Your task to perform on an android device: See recent photos Image 0: 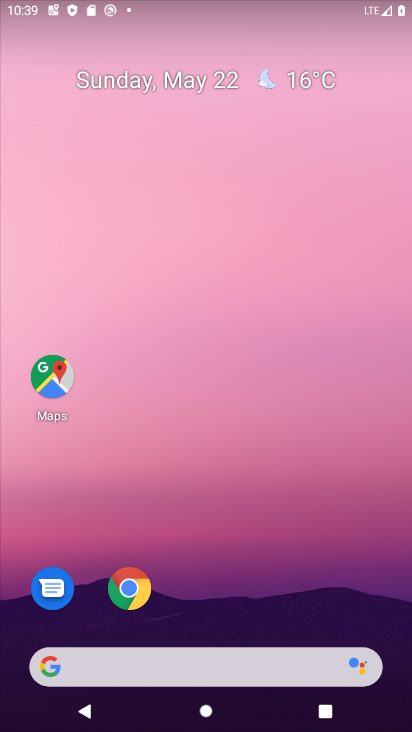
Step 0: drag from (258, 384) to (258, 216)
Your task to perform on an android device: See recent photos Image 1: 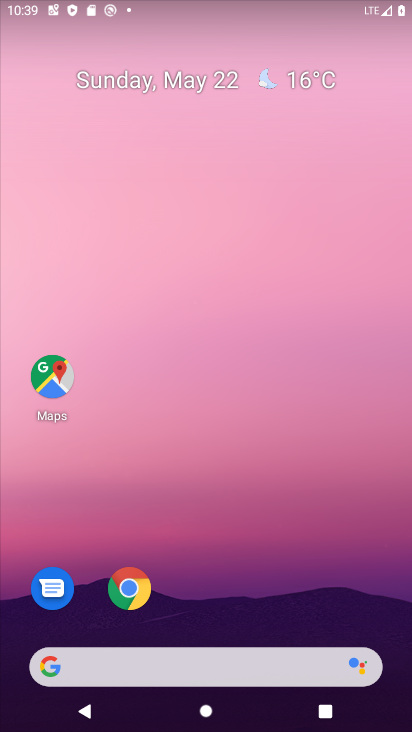
Step 1: drag from (196, 618) to (230, 154)
Your task to perform on an android device: See recent photos Image 2: 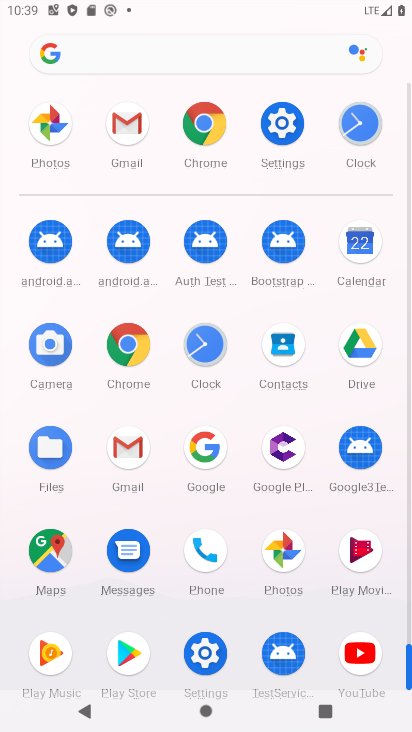
Step 2: click (202, 456)
Your task to perform on an android device: See recent photos Image 3: 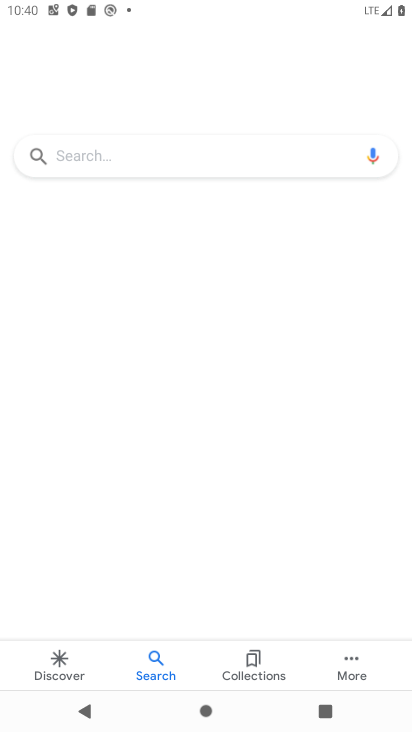
Step 3: click (116, 155)
Your task to perform on an android device: See recent photos Image 4: 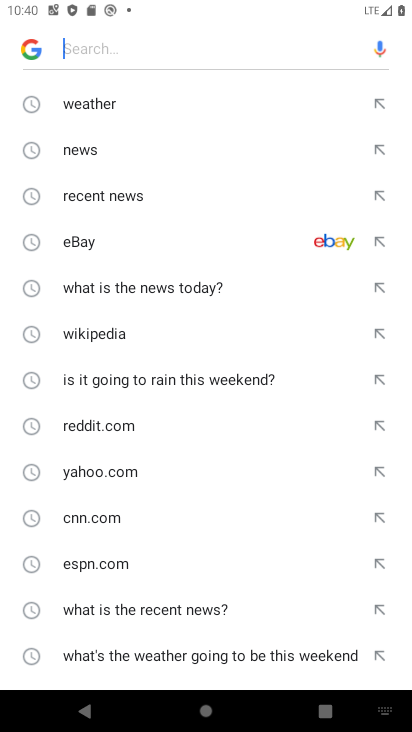
Step 4: click (90, 140)
Your task to perform on an android device: See recent photos Image 5: 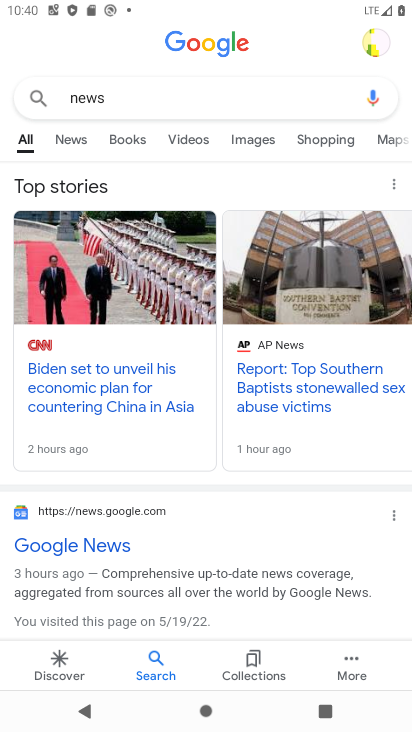
Step 5: click (65, 144)
Your task to perform on an android device: See recent photos Image 6: 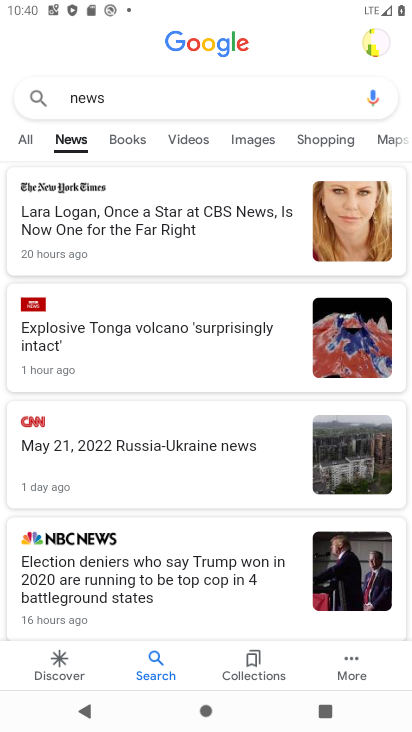
Step 6: task complete